Your task to perform on an android device: Open accessibility settings Image 0: 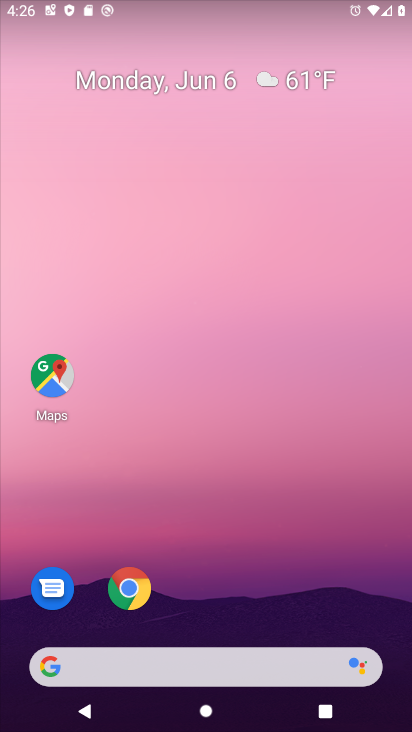
Step 0: drag from (279, 609) to (231, 215)
Your task to perform on an android device: Open accessibility settings Image 1: 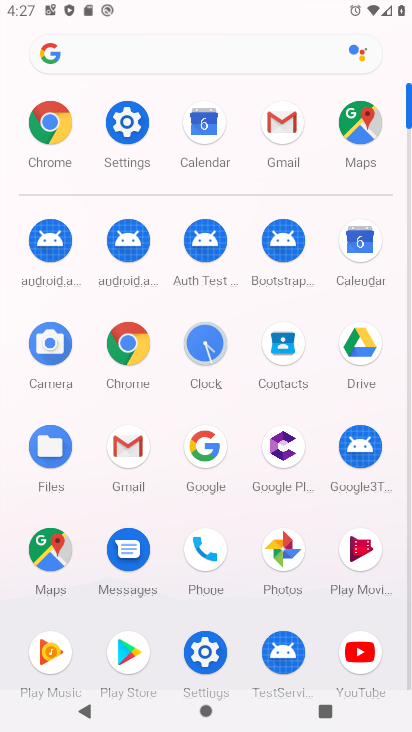
Step 1: click (138, 136)
Your task to perform on an android device: Open accessibility settings Image 2: 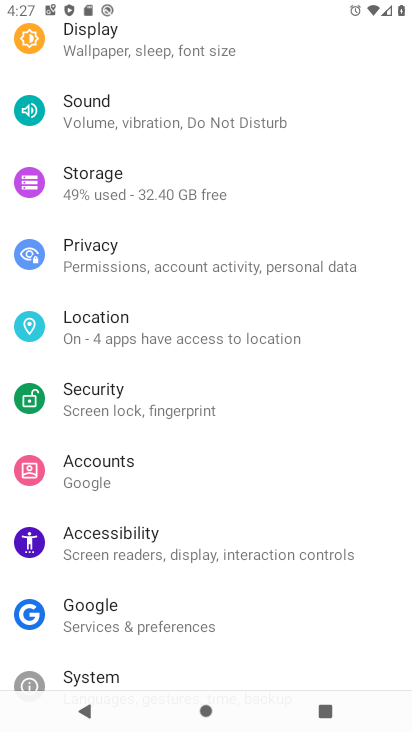
Step 2: click (221, 530)
Your task to perform on an android device: Open accessibility settings Image 3: 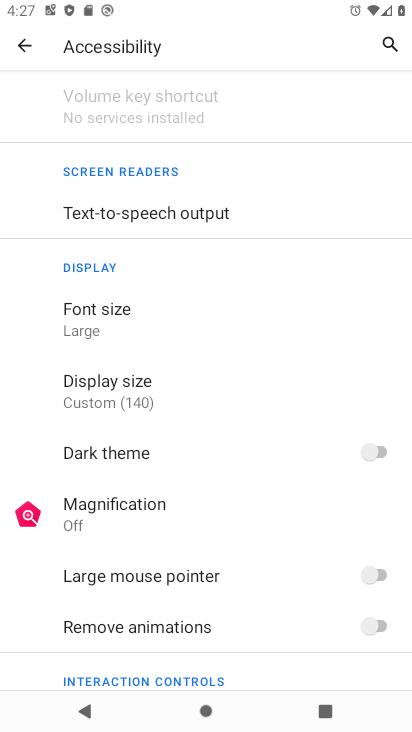
Step 3: task complete